Your task to perform on an android device: open chrome and create a bookmark for the current page Image 0: 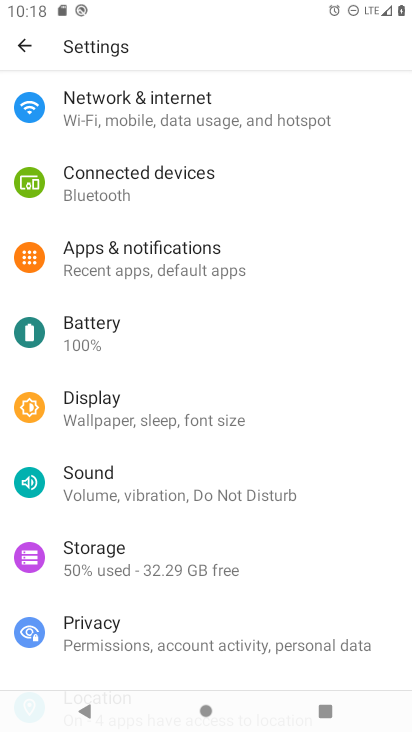
Step 0: press home button
Your task to perform on an android device: open chrome and create a bookmark for the current page Image 1: 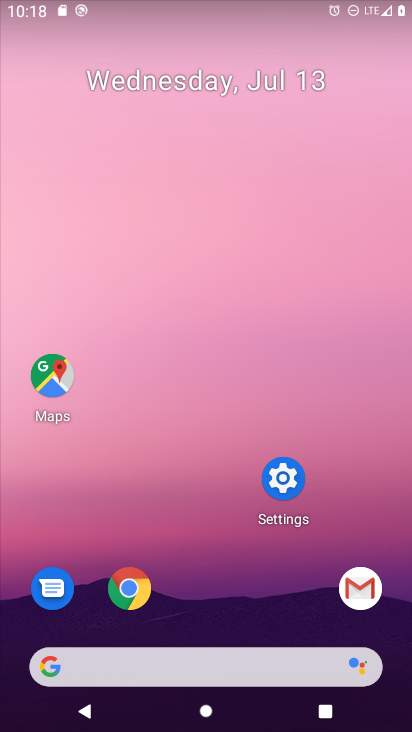
Step 1: click (134, 603)
Your task to perform on an android device: open chrome and create a bookmark for the current page Image 2: 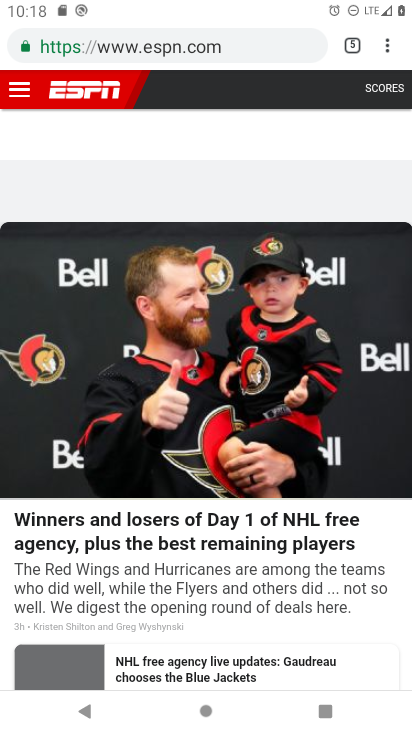
Step 2: click (380, 50)
Your task to perform on an android device: open chrome and create a bookmark for the current page Image 3: 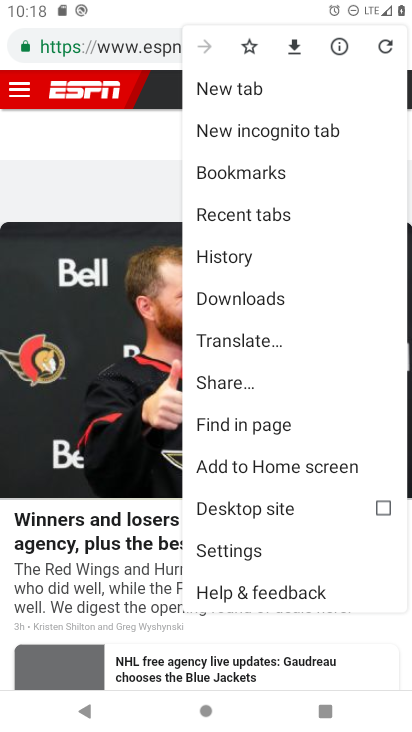
Step 3: click (261, 170)
Your task to perform on an android device: open chrome and create a bookmark for the current page Image 4: 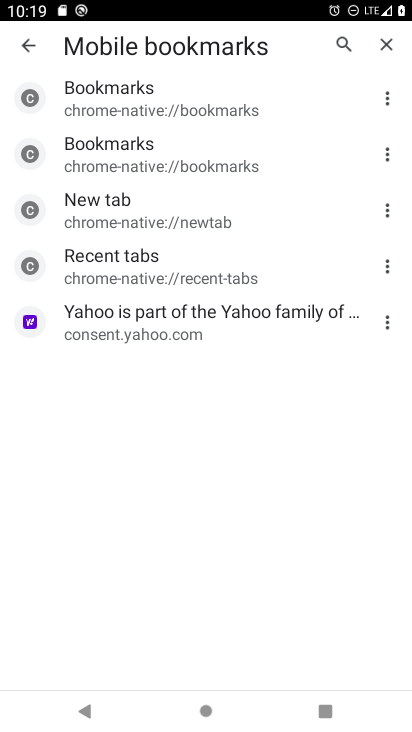
Step 4: click (165, 109)
Your task to perform on an android device: open chrome and create a bookmark for the current page Image 5: 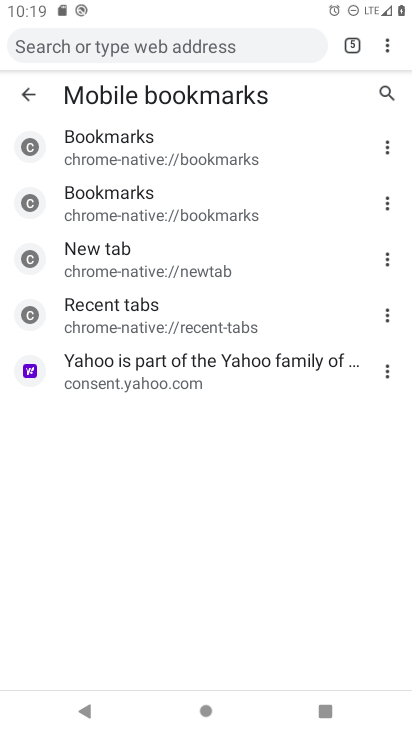
Step 5: click (133, 161)
Your task to perform on an android device: open chrome and create a bookmark for the current page Image 6: 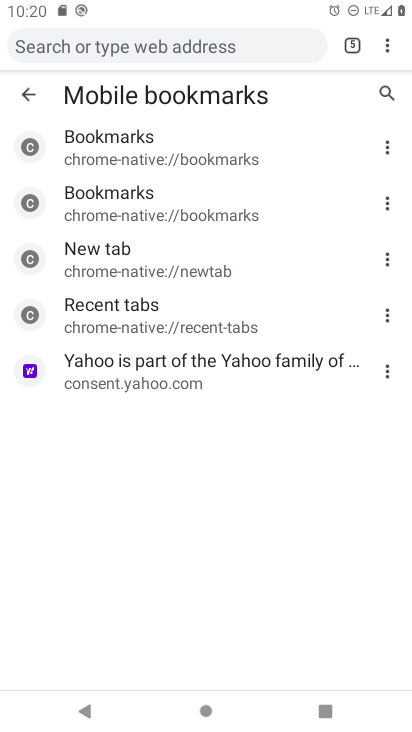
Step 6: task complete